Your task to perform on an android device: all mails in gmail Image 0: 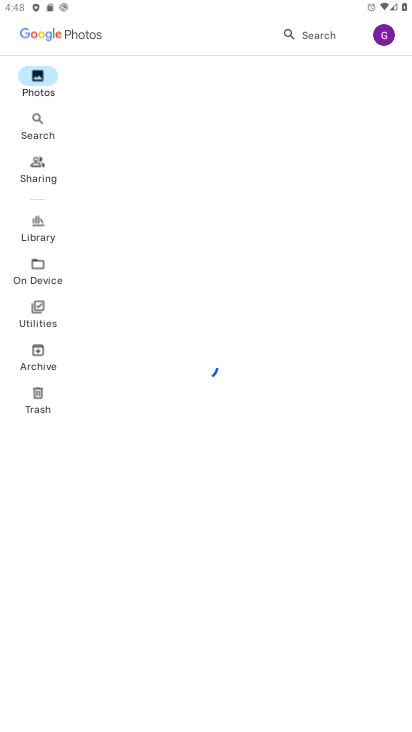
Step 0: press home button
Your task to perform on an android device: all mails in gmail Image 1: 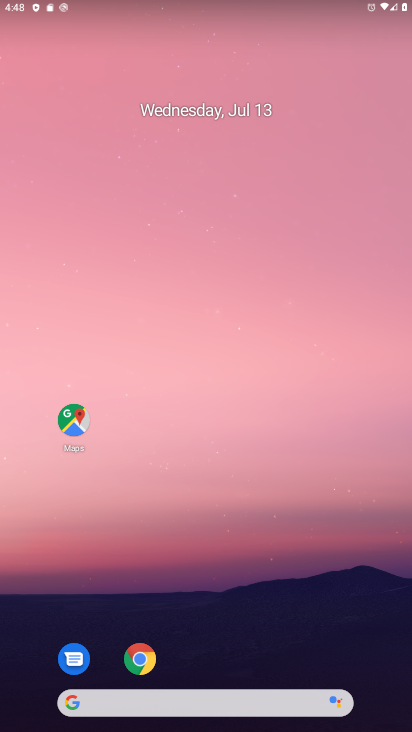
Step 1: drag from (255, 632) to (194, 116)
Your task to perform on an android device: all mails in gmail Image 2: 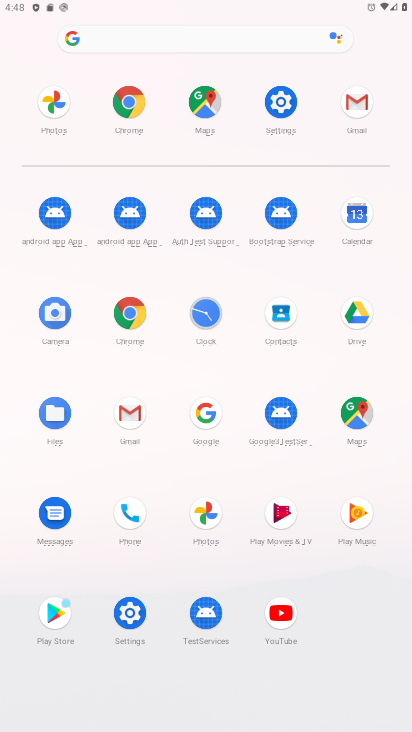
Step 2: click (136, 419)
Your task to perform on an android device: all mails in gmail Image 3: 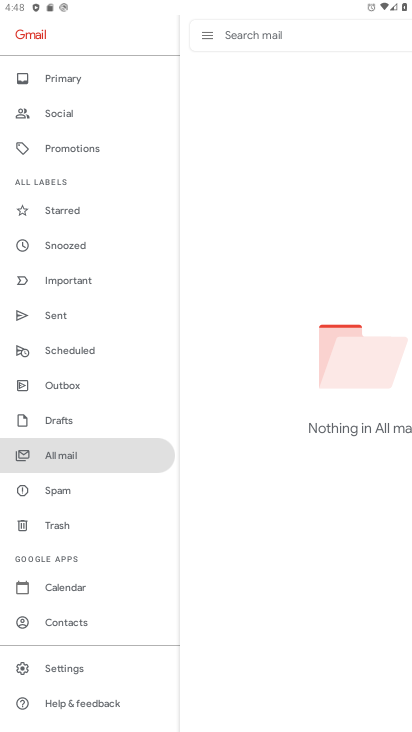
Step 3: click (83, 453)
Your task to perform on an android device: all mails in gmail Image 4: 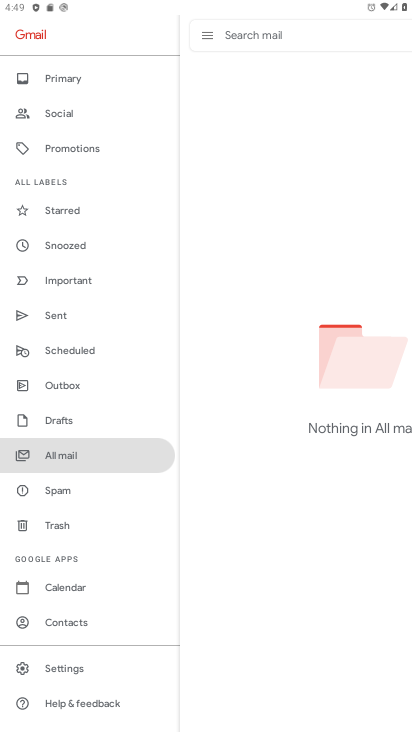
Step 4: task complete